Your task to perform on an android device: Open Google Maps Image 0: 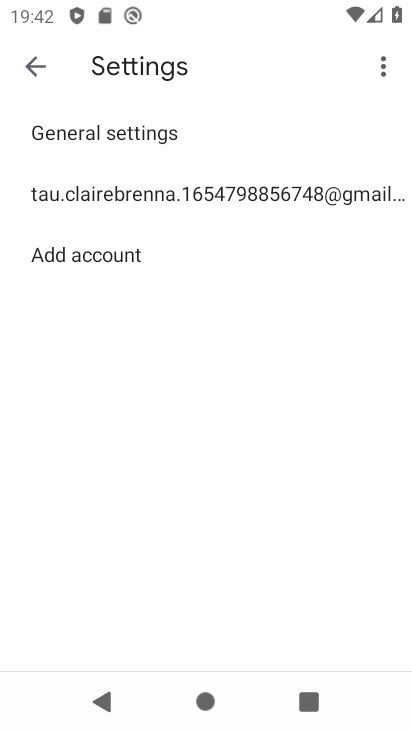
Step 0: press home button
Your task to perform on an android device: Open Google Maps Image 1: 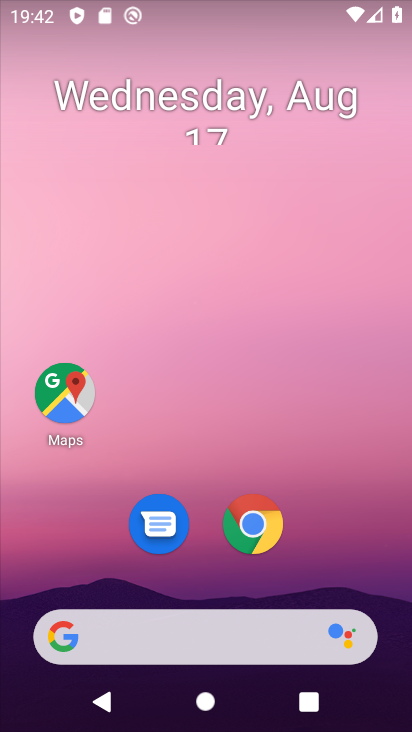
Step 1: click (199, 651)
Your task to perform on an android device: Open Google Maps Image 2: 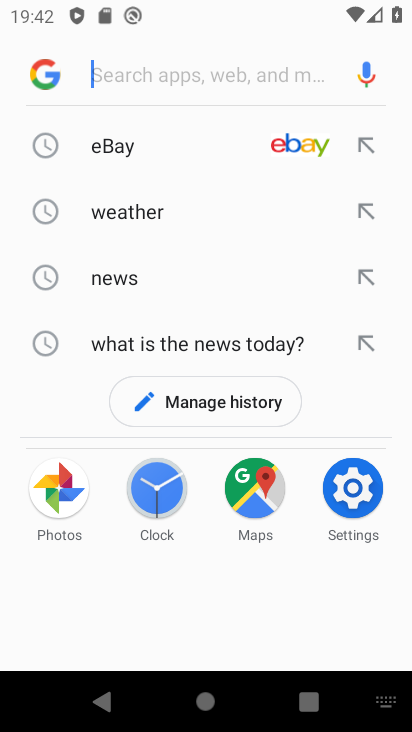
Step 2: click (265, 494)
Your task to perform on an android device: Open Google Maps Image 3: 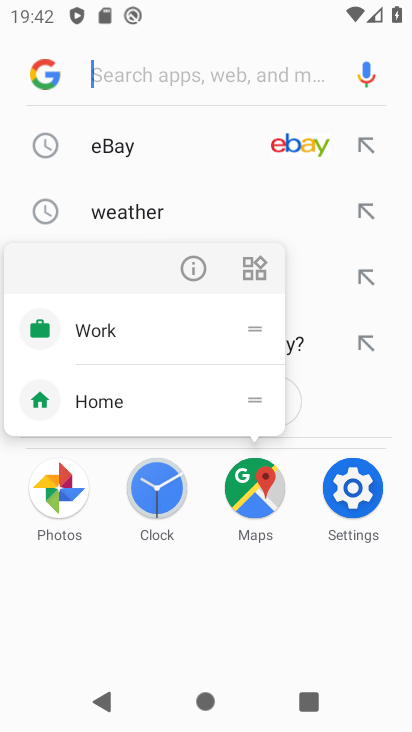
Step 3: click (256, 493)
Your task to perform on an android device: Open Google Maps Image 4: 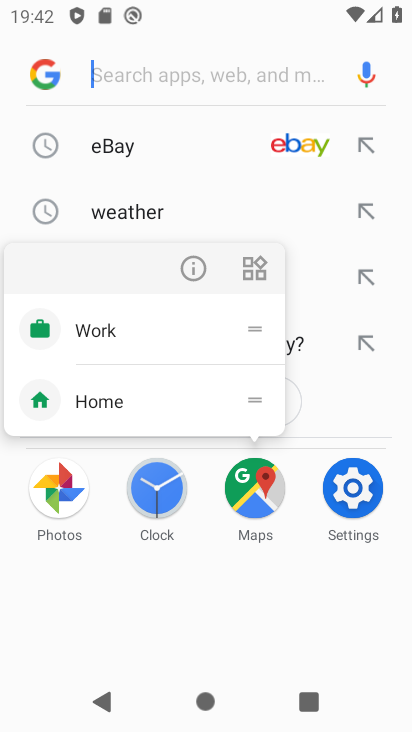
Step 4: click (256, 493)
Your task to perform on an android device: Open Google Maps Image 5: 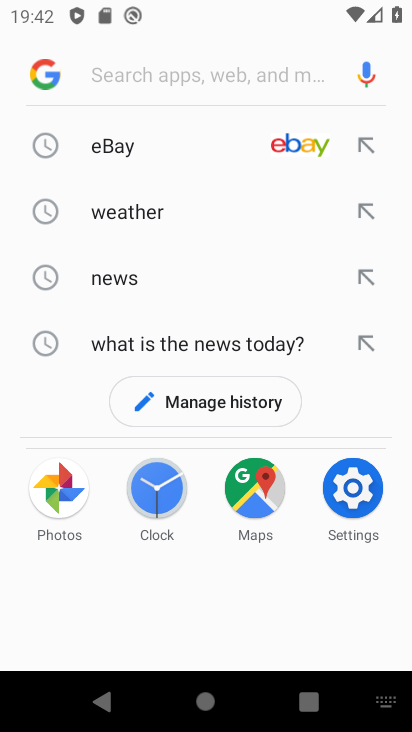
Step 5: press home button
Your task to perform on an android device: Open Google Maps Image 6: 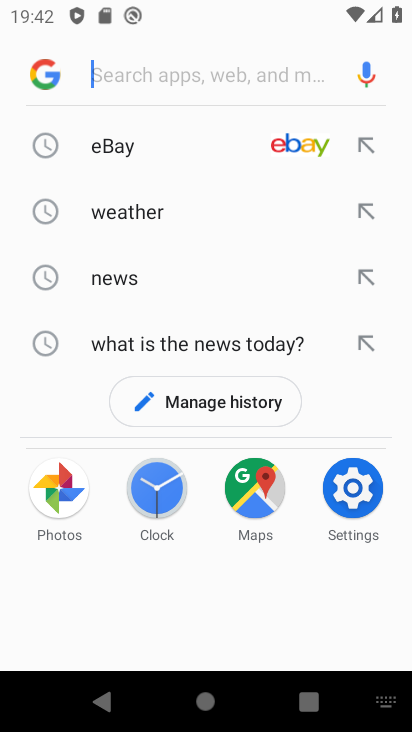
Step 6: press home button
Your task to perform on an android device: Open Google Maps Image 7: 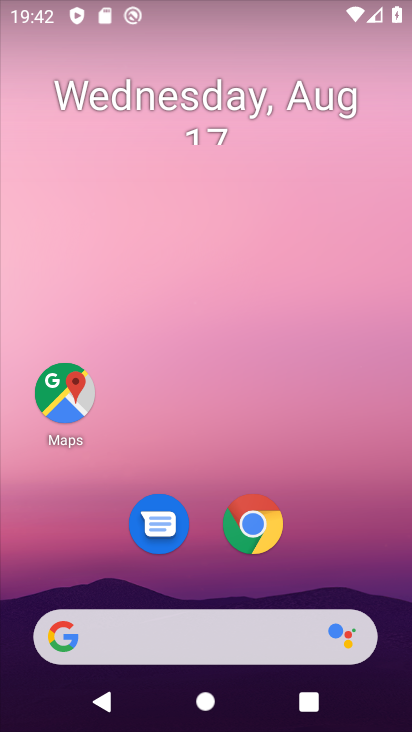
Step 7: click (70, 390)
Your task to perform on an android device: Open Google Maps Image 8: 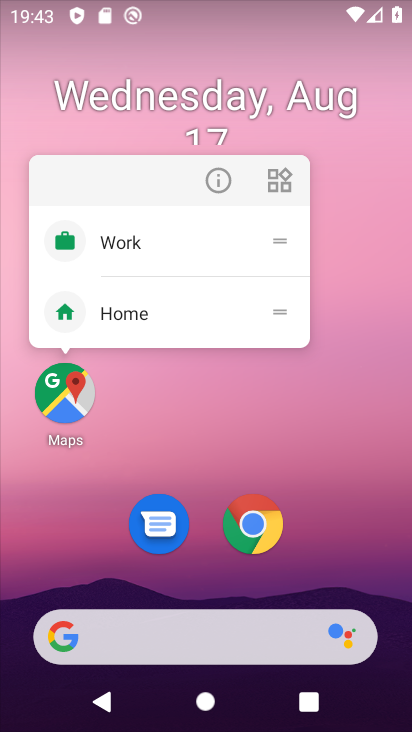
Step 8: click (70, 390)
Your task to perform on an android device: Open Google Maps Image 9: 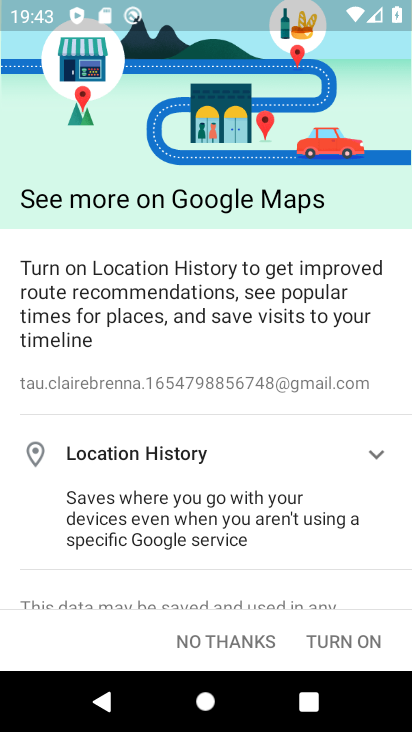
Step 9: click (346, 637)
Your task to perform on an android device: Open Google Maps Image 10: 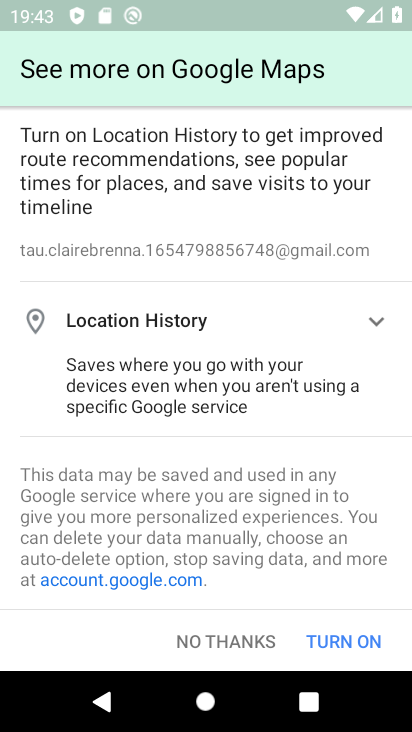
Step 10: click (346, 636)
Your task to perform on an android device: Open Google Maps Image 11: 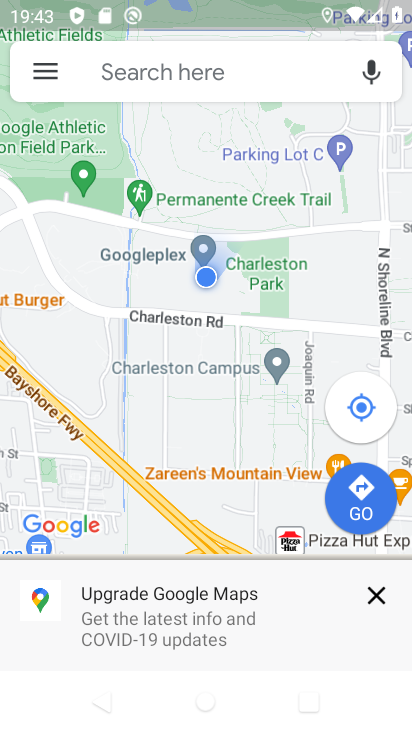
Step 11: click (374, 595)
Your task to perform on an android device: Open Google Maps Image 12: 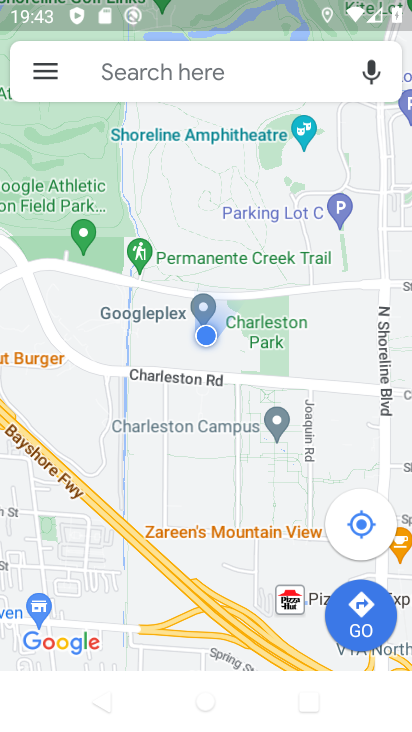
Step 12: task complete